Your task to perform on an android device: toggle data saver in the chrome app Image 0: 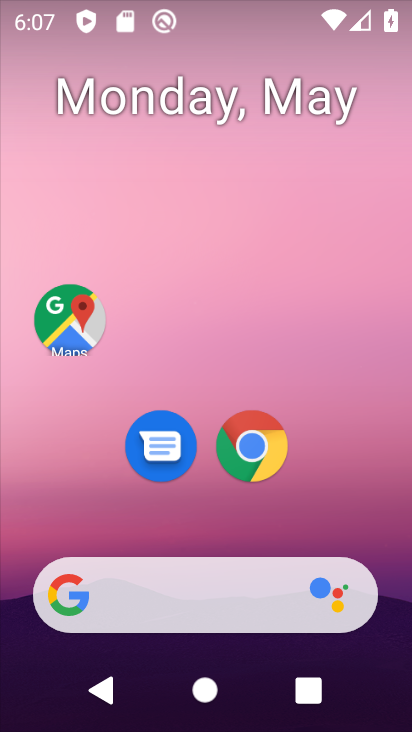
Step 0: click (262, 448)
Your task to perform on an android device: toggle data saver in the chrome app Image 1: 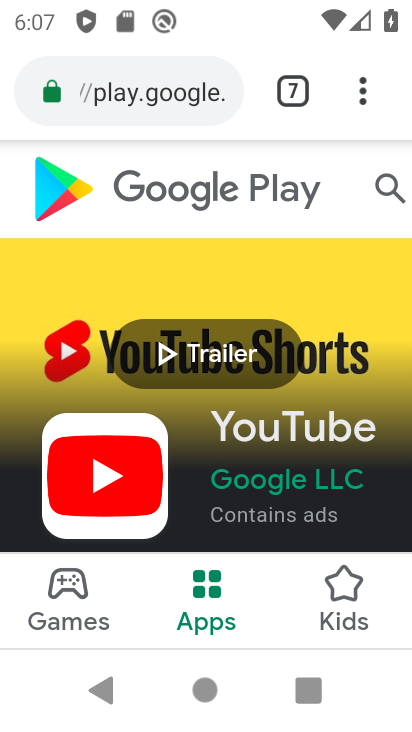
Step 1: click (359, 89)
Your task to perform on an android device: toggle data saver in the chrome app Image 2: 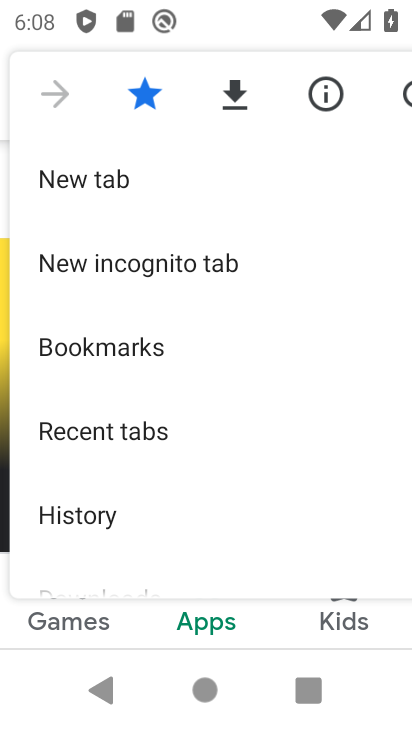
Step 2: drag from (174, 458) to (174, 163)
Your task to perform on an android device: toggle data saver in the chrome app Image 3: 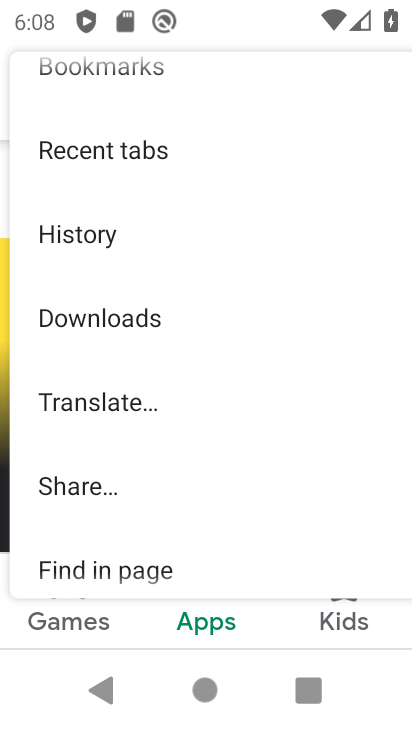
Step 3: drag from (167, 386) to (158, 83)
Your task to perform on an android device: toggle data saver in the chrome app Image 4: 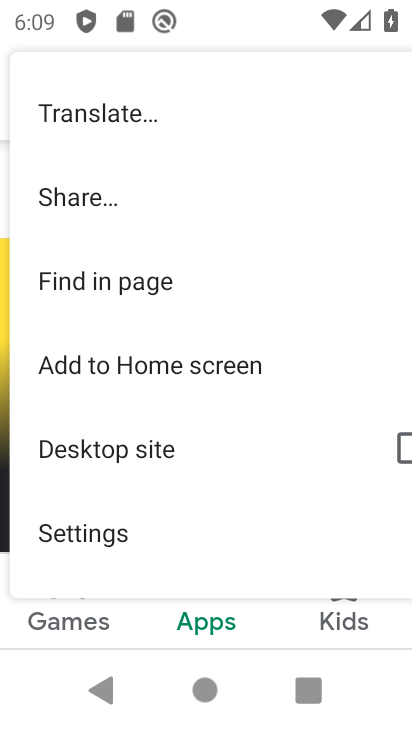
Step 4: drag from (155, 465) to (131, 197)
Your task to perform on an android device: toggle data saver in the chrome app Image 5: 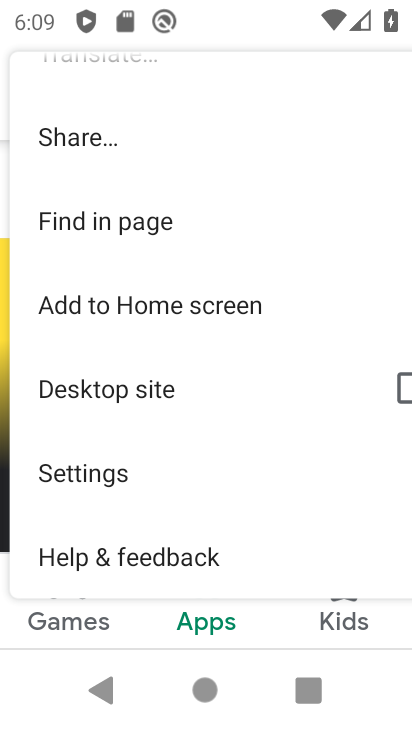
Step 5: click (88, 457)
Your task to perform on an android device: toggle data saver in the chrome app Image 6: 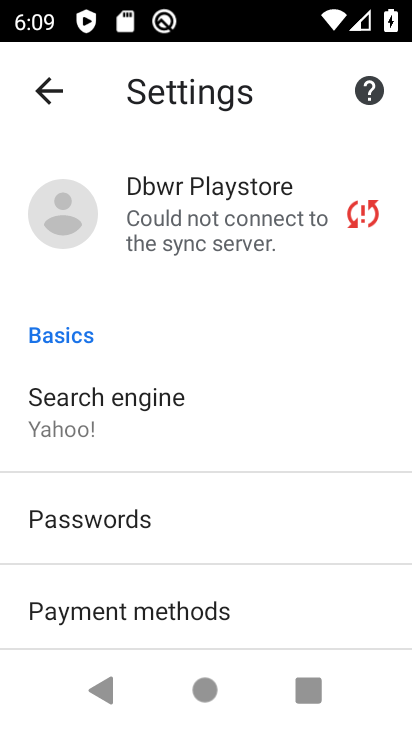
Step 6: drag from (207, 495) to (180, 236)
Your task to perform on an android device: toggle data saver in the chrome app Image 7: 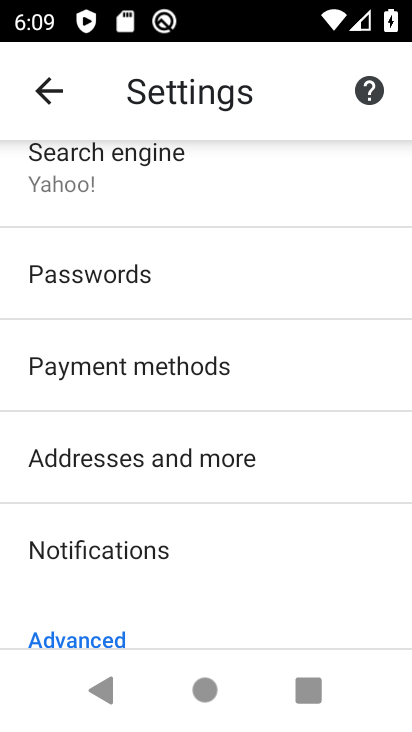
Step 7: drag from (228, 508) to (228, 232)
Your task to perform on an android device: toggle data saver in the chrome app Image 8: 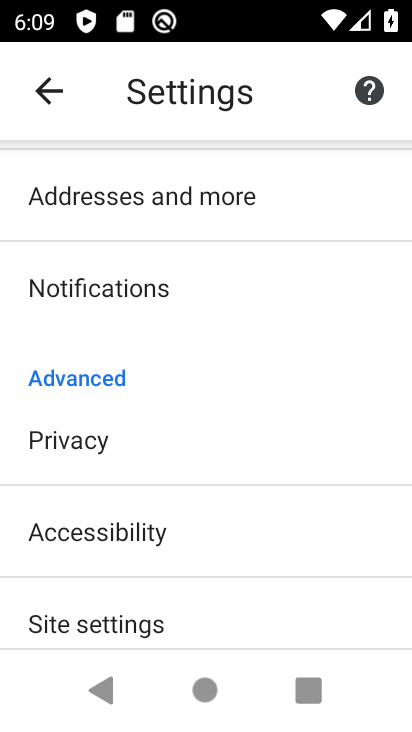
Step 8: drag from (209, 524) to (208, 259)
Your task to perform on an android device: toggle data saver in the chrome app Image 9: 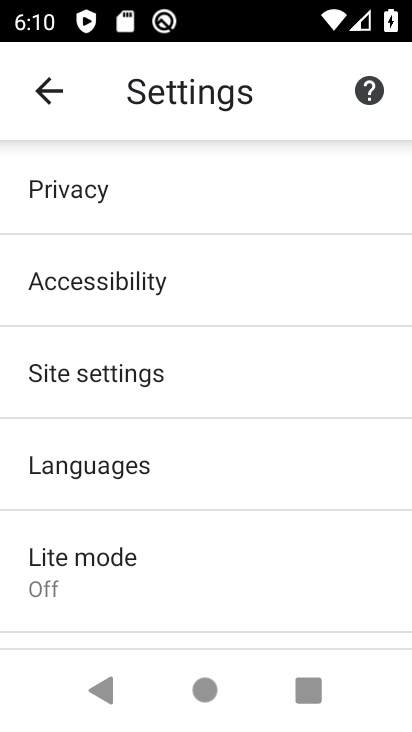
Step 9: click (92, 550)
Your task to perform on an android device: toggle data saver in the chrome app Image 10: 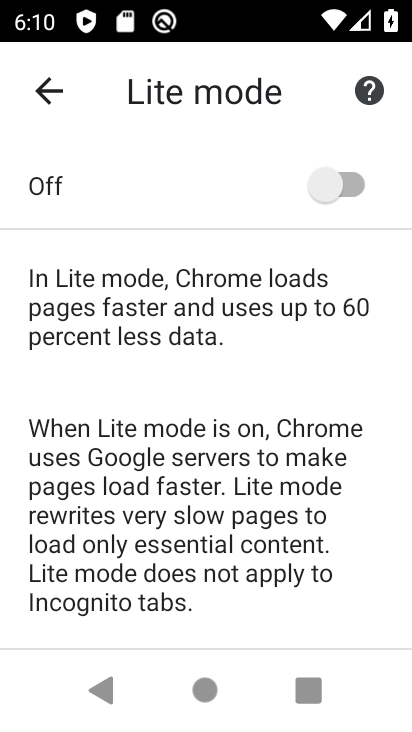
Step 10: click (342, 187)
Your task to perform on an android device: toggle data saver in the chrome app Image 11: 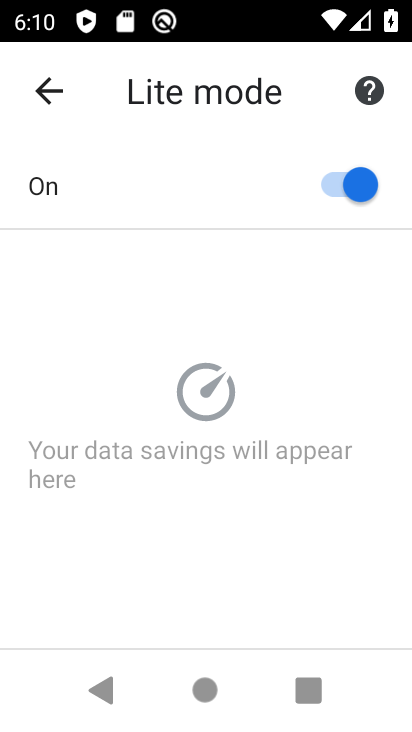
Step 11: task complete